Your task to perform on an android device: Open internet settings Image 0: 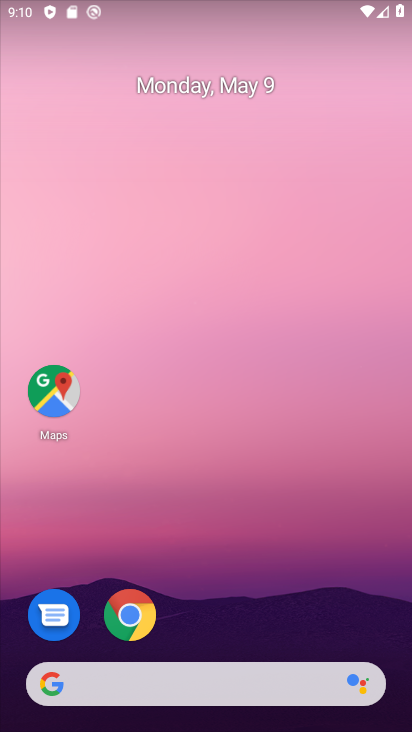
Step 0: drag from (204, 644) to (282, 323)
Your task to perform on an android device: Open internet settings Image 1: 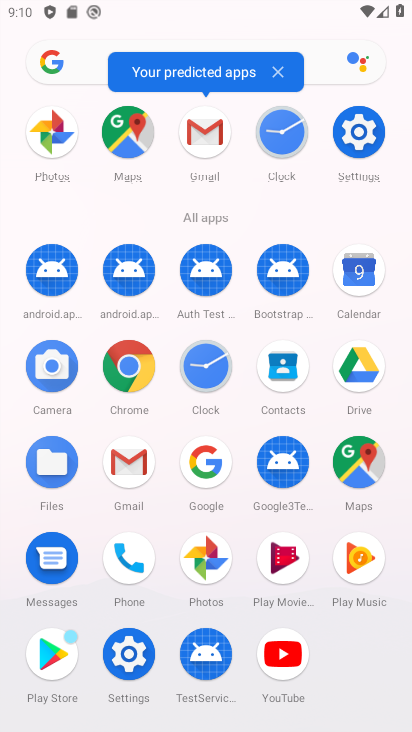
Step 1: click (123, 660)
Your task to perform on an android device: Open internet settings Image 2: 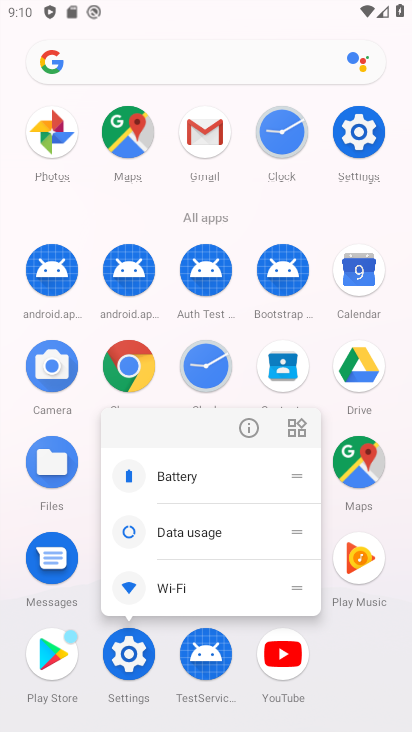
Step 2: click (117, 668)
Your task to perform on an android device: Open internet settings Image 3: 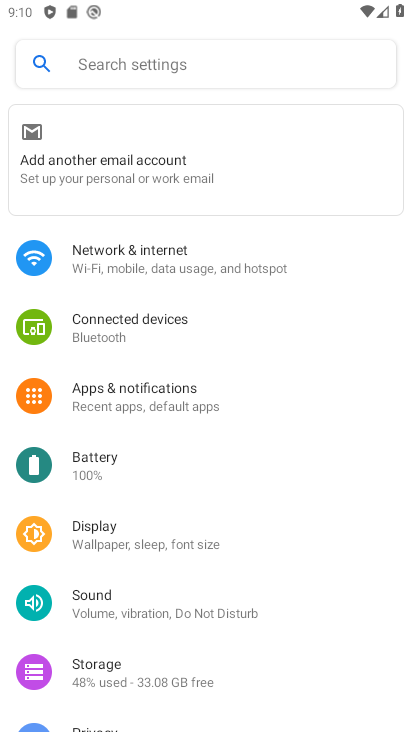
Step 3: click (183, 271)
Your task to perform on an android device: Open internet settings Image 4: 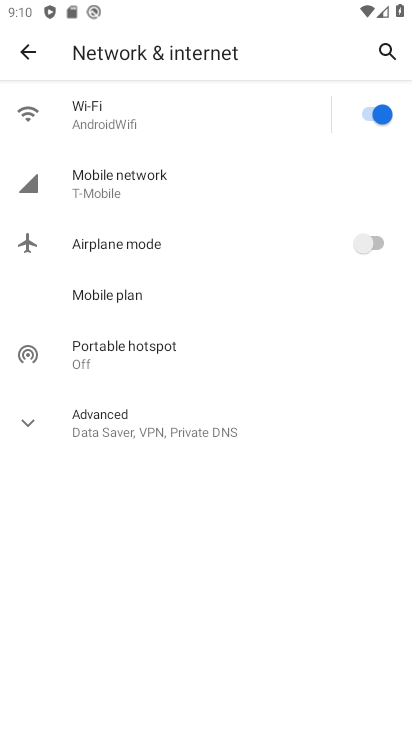
Step 4: click (158, 197)
Your task to perform on an android device: Open internet settings Image 5: 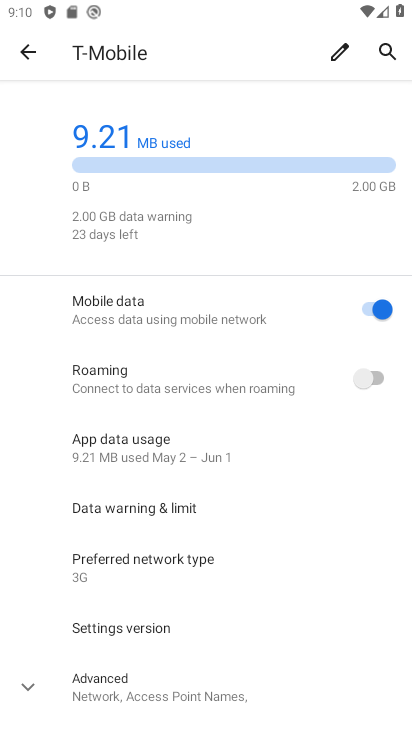
Step 5: task complete